Your task to perform on an android device: turn on priority inbox in the gmail app Image 0: 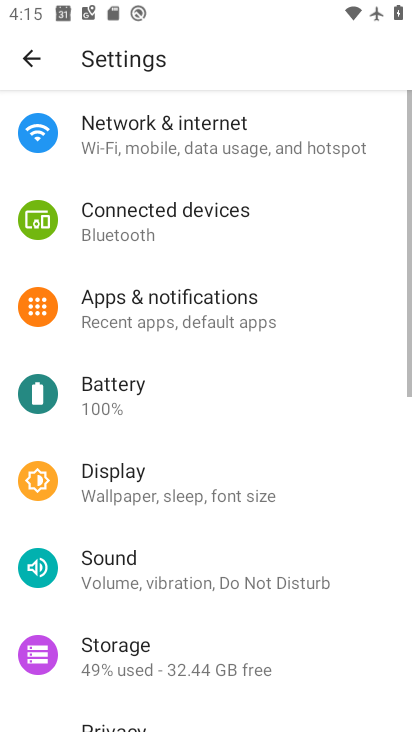
Step 0: press home button
Your task to perform on an android device: turn on priority inbox in the gmail app Image 1: 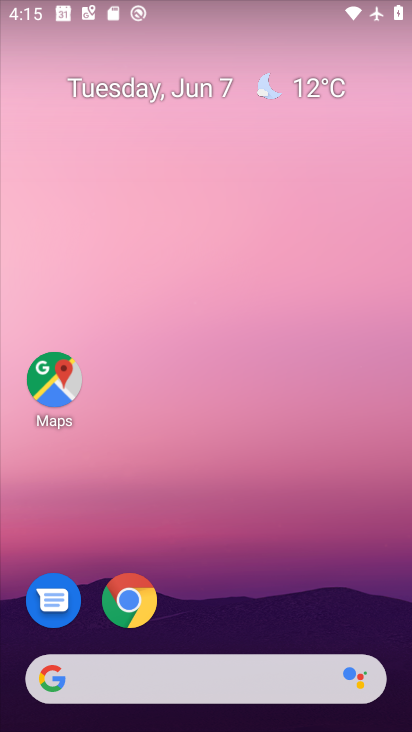
Step 1: click (315, 88)
Your task to perform on an android device: turn on priority inbox in the gmail app Image 2: 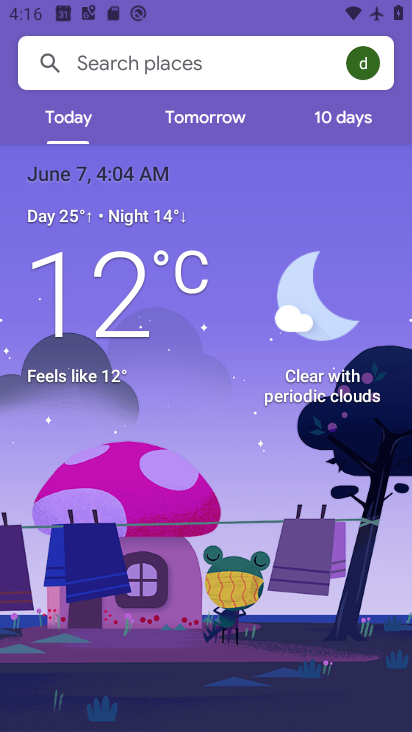
Step 2: press home button
Your task to perform on an android device: turn on priority inbox in the gmail app Image 3: 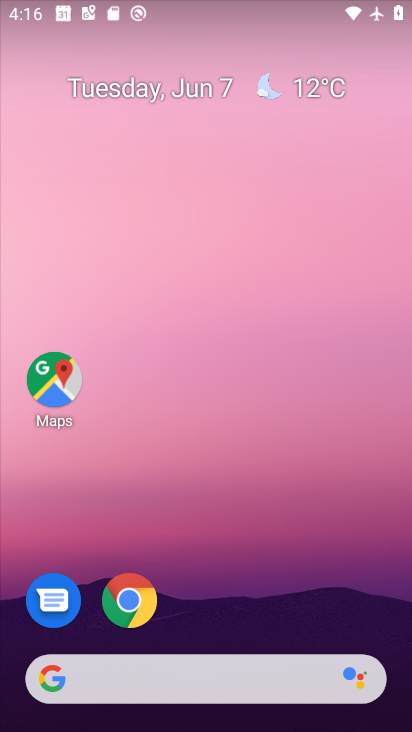
Step 3: drag from (291, 614) to (324, 145)
Your task to perform on an android device: turn on priority inbox in the gmail app Image 4: 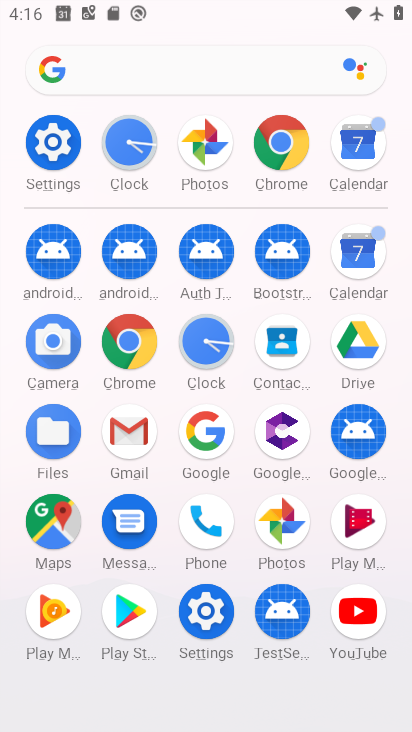
Step 4: click (142, 432)
Your task to perform on an android device: turn on priority inbox in the gmail app Image 5: 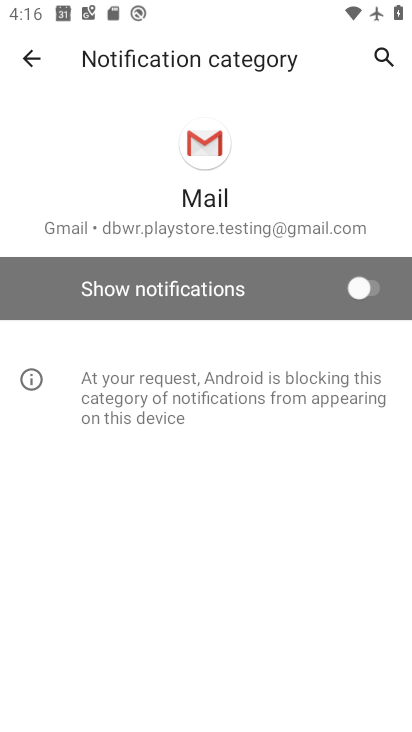
Step 5: click (33, 52)
Your task to perform on an android device: turn on priority inbox in the gmail app Image 6: 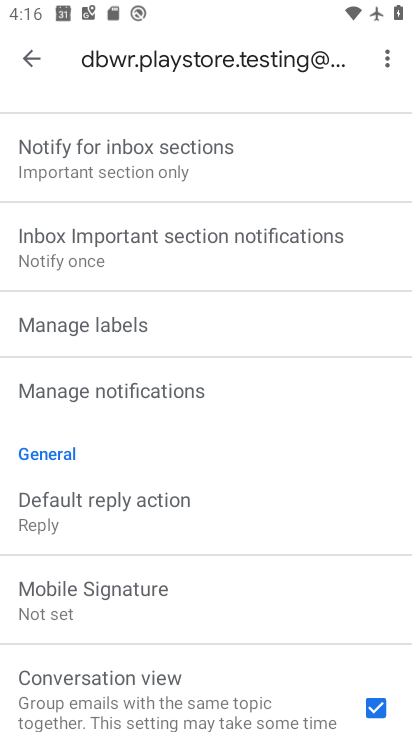
Step 6: click (36, 62)
Your task to perform on an android device: turn on priority inbox in the gmail app Image 7: 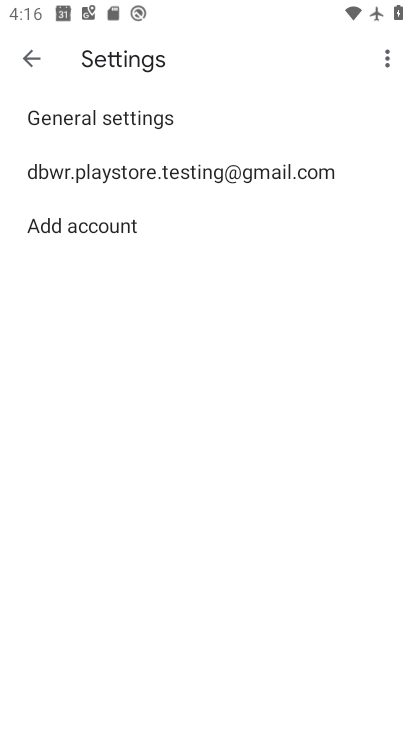
Step 7: click (30, 60)
Your task to perform on an android device: turn on priority inbox in the gmail app Image 8: 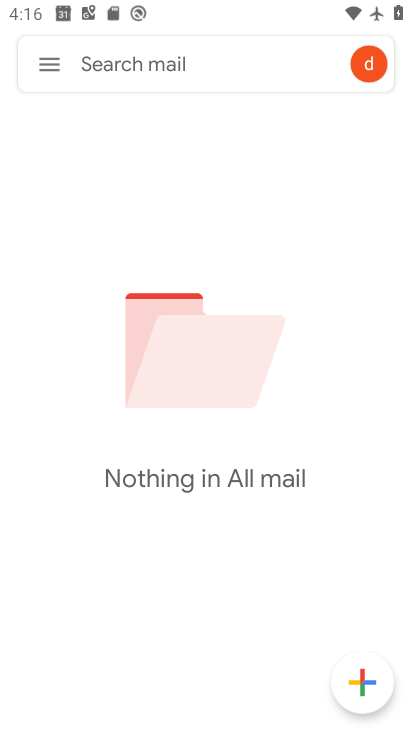
Step 8: click (30, 60)
Your task to perform on an android device: turn on priority inbox in the gmail app Image 9: 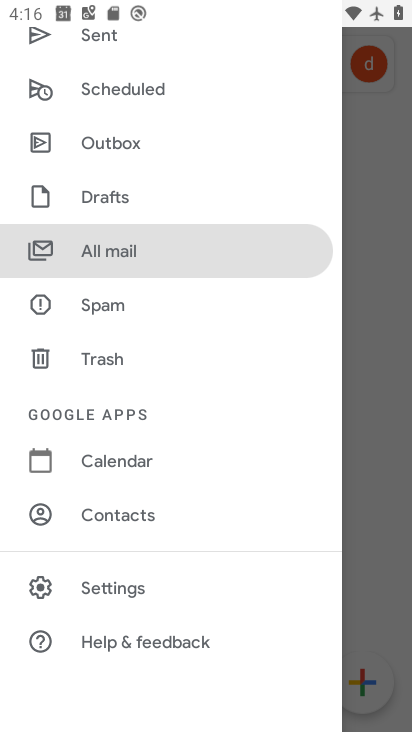
Step 9: click (143, 604)
Your task to perform on an android device: turn on priority inbox in the gmail app Image 10: 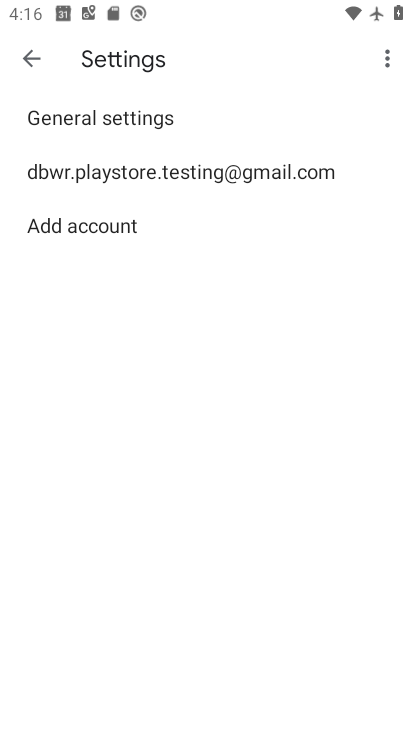
Step 10: click (246, 180)
Your task to perform on an android device: turn on priority inbox in the gmail app Image 11: 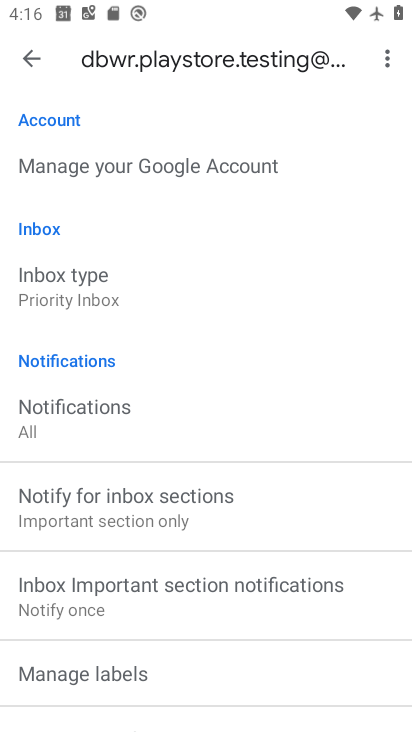
Step 11: click (87, 304)
Your task to perform on an android device: turn on priority inbox in the gmail app Image 12: 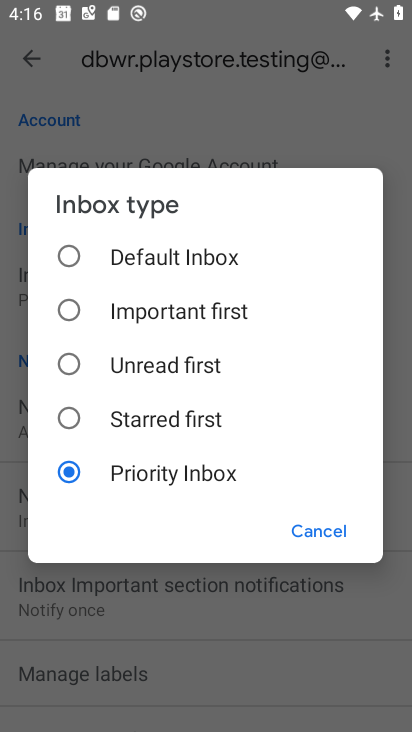
Step 12: task complete